Your task to perform on an android device: Go to ESPN.com Image 0: 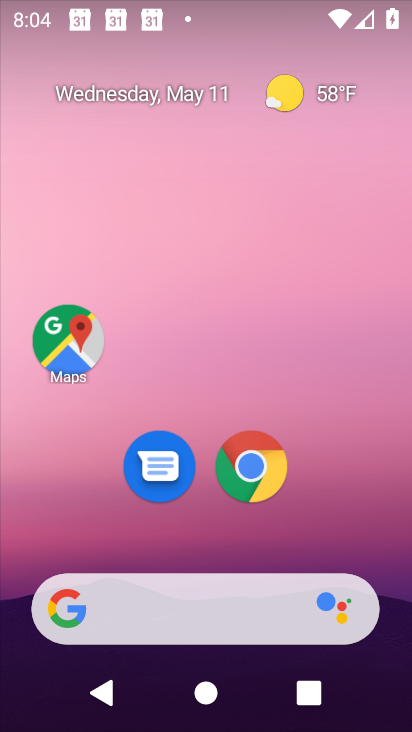
Step 0: click (253, 455)
Your task to perform on an android device: Go to ESPN.com Image 1: 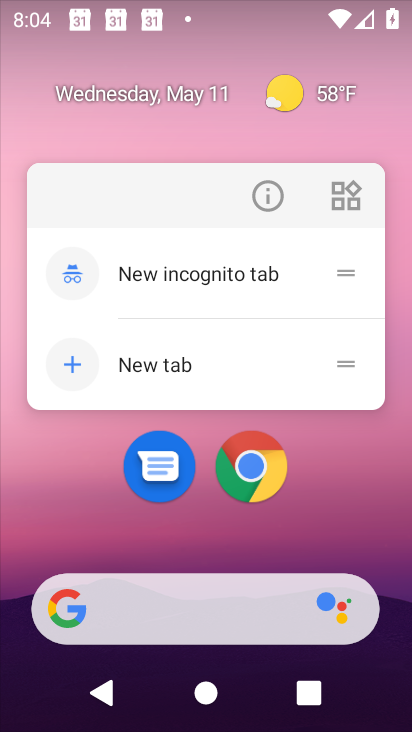
Step 1: click (249, 461)
Your task to perform on an android device: Go to ESPN.com Image 2: 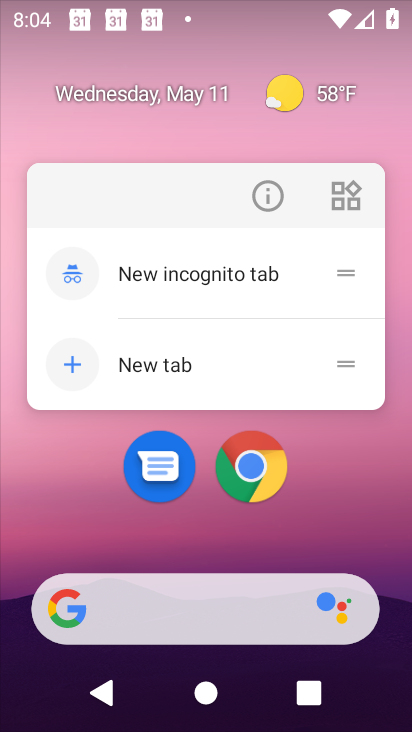
Step 2: click (255, 461)
Your task to perform on an android device: Go to ESPN.com Image 3: 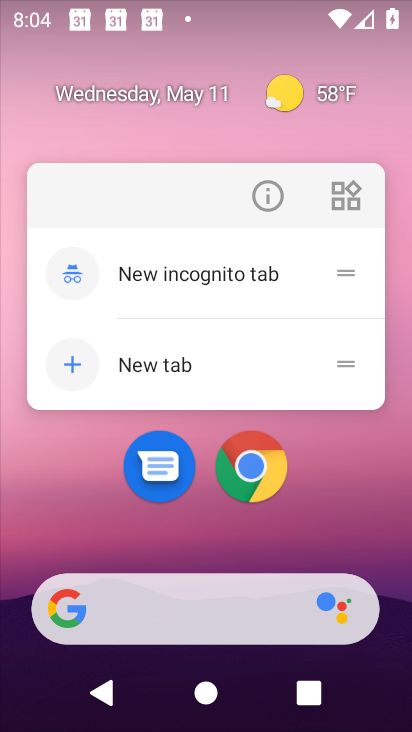
Step 3: click (256, 484)
Your task to perform on an android device: Go to ESPN.com Image 4: 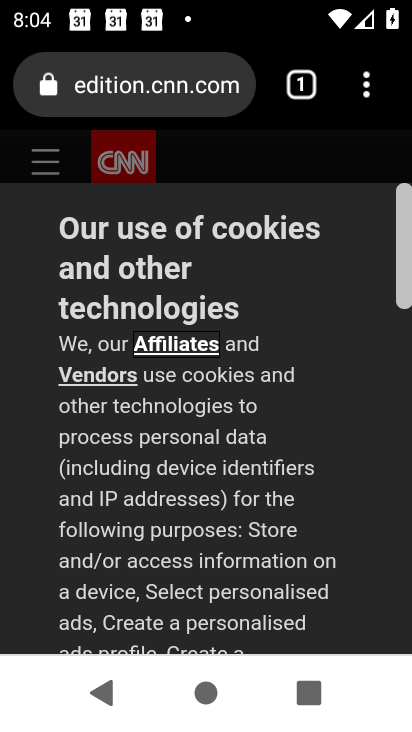
Step 4: click (182, 95)
Your task to perform on an android device: Go to ESPN.com Image 5: 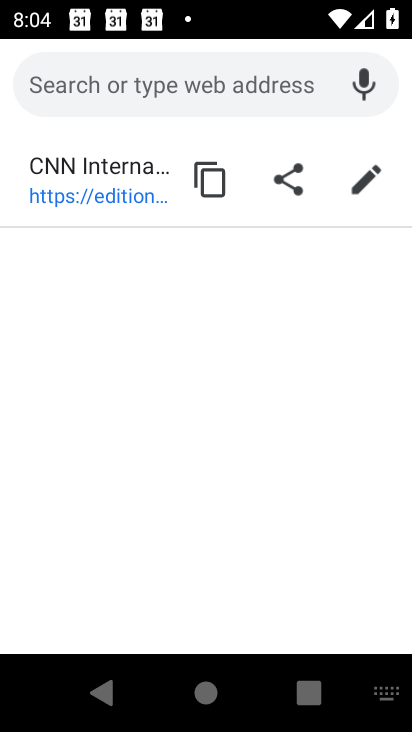
Step 5: type "ESPN.com"
Your task to perform on an android device: Go to ESPN.com Image 6: 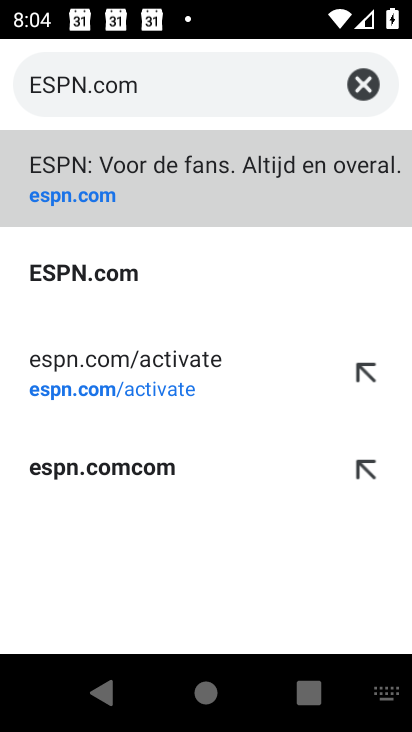
Step 6: click (71, 182)
Your task to perform on an android device: Go to ESPN.com Image 7: 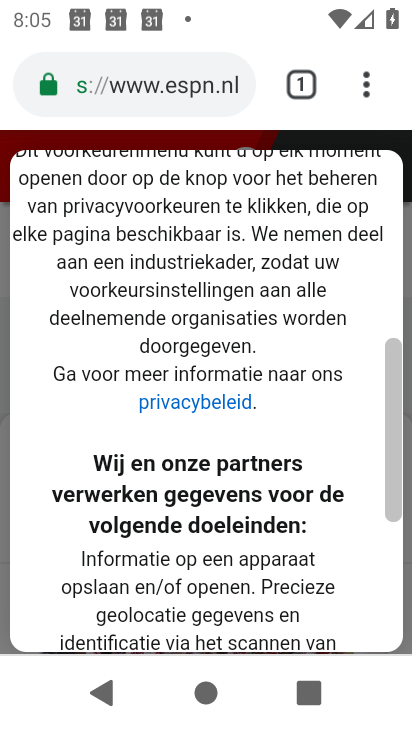
Step 7: task complete